Your task to perform on an android device: What's the weather? Image 0: 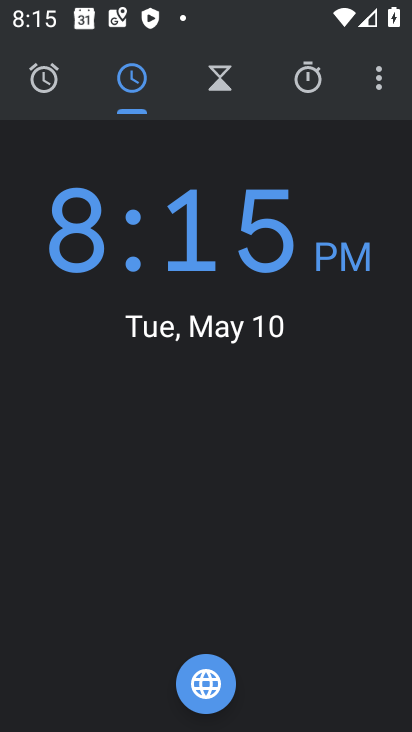
Step 0: press home button
Your task to perform on an android device: What's the weather? Image 1: 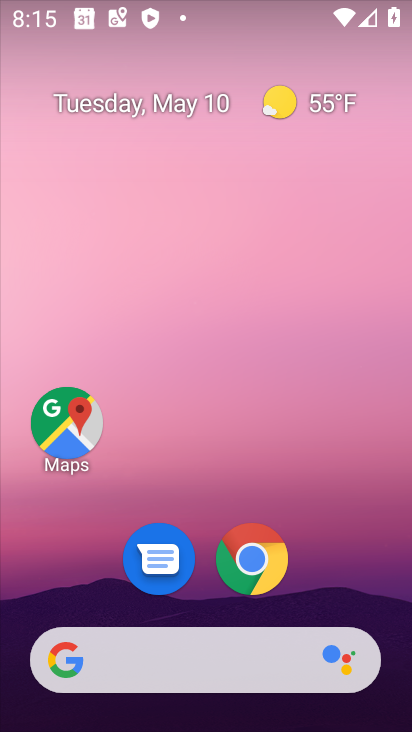
Step 1: click (278, 102)
Your task to perform on an android device: What's the weather? Image 2: 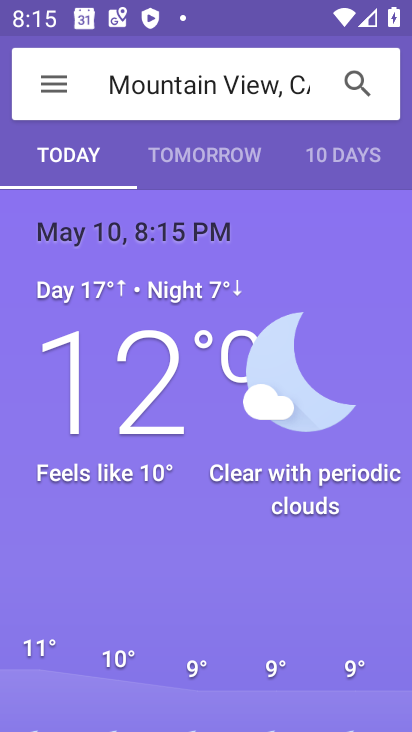
Step 2: task complete